Your task to perform on an android device: Open settings on Google Maps Image 0: 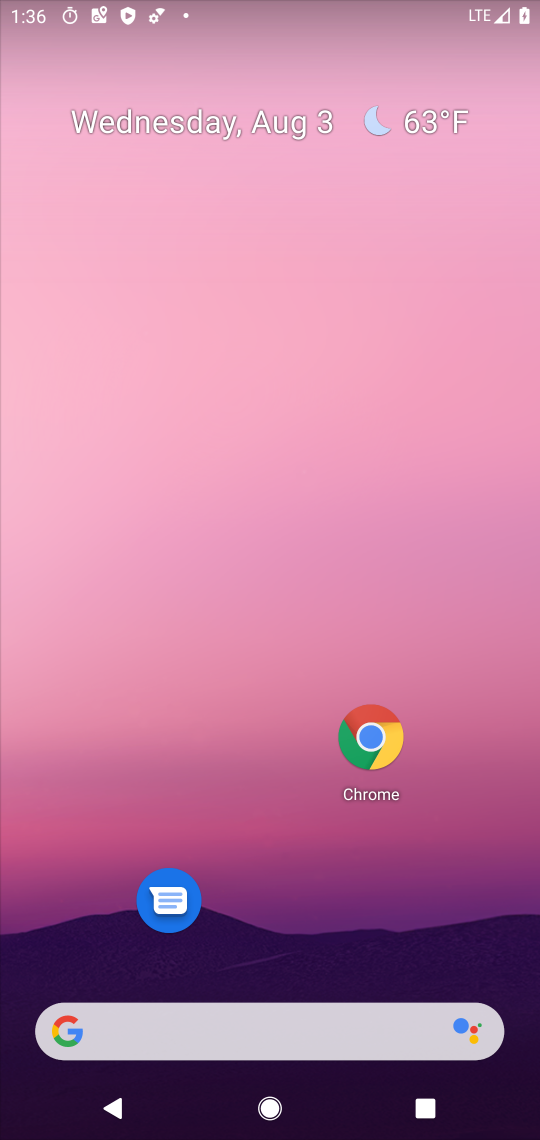
Step 0: drag from (379, 920) to (291, 25)
Your task to perform on an android device: Open settings on Google Maps Image 1: 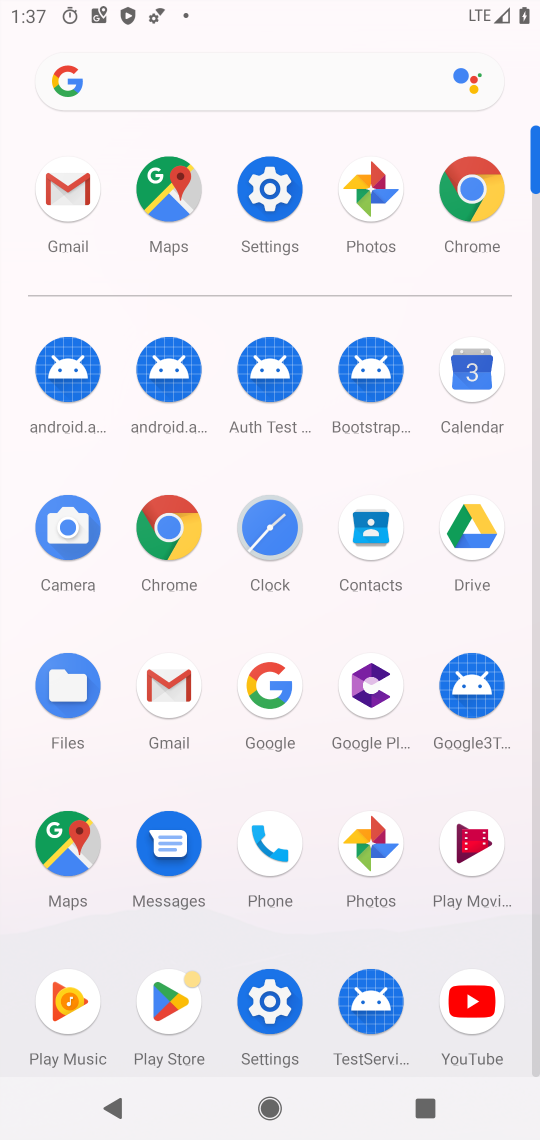
Step 1: click (69, 848)
Your task to perform on an android device: Open settings on Google Maps Image 2: 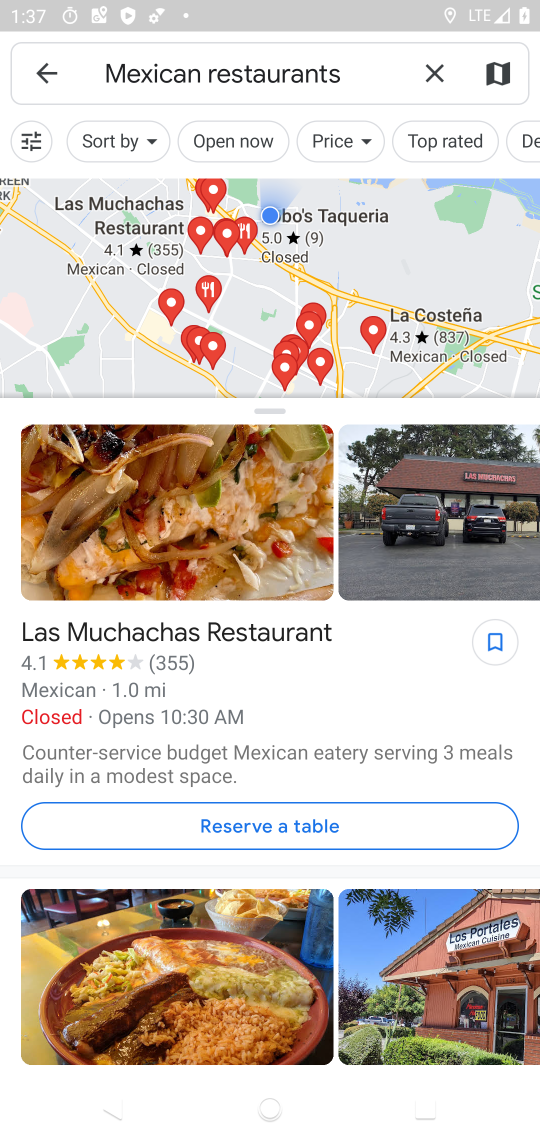
Step 2: click (40, 60)
Your task to perform on an android device: Open settings on Google Maps Image 3: 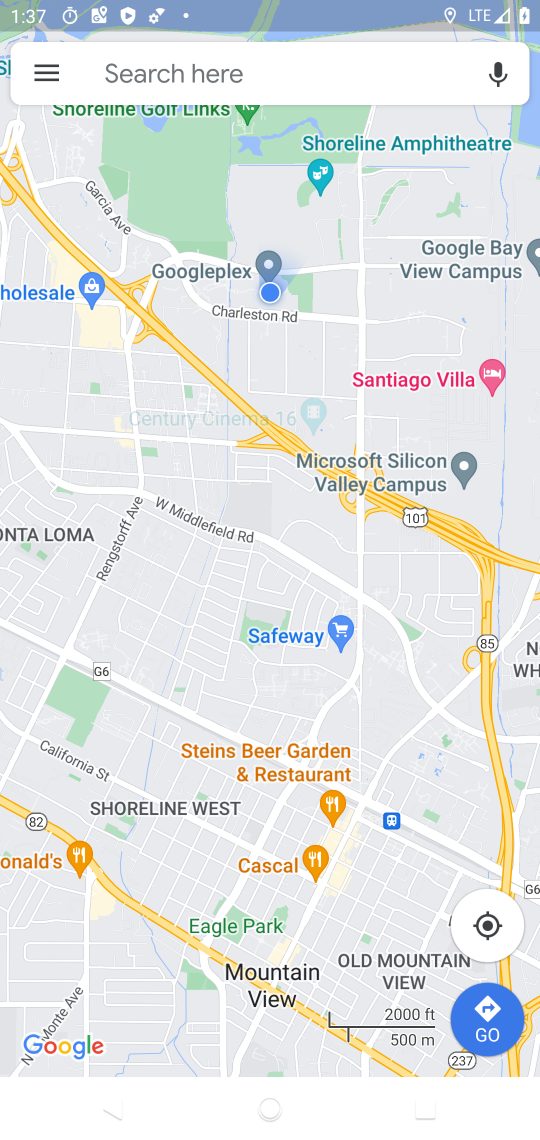
Step 3: click (40, 60)
Your task to perform on an android device: Open settings on Google Maps Image 4: 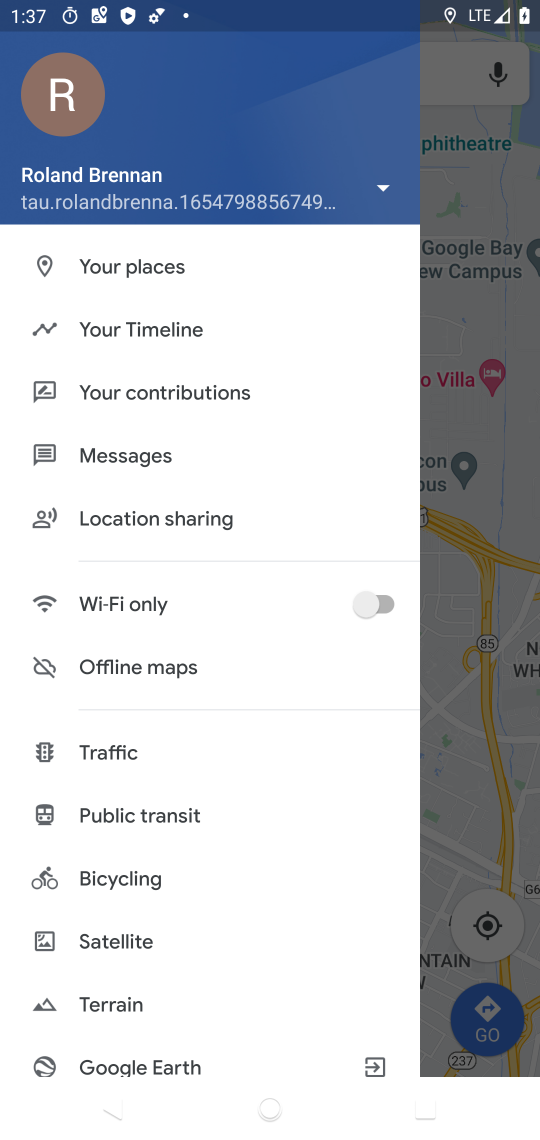
Step 4: drag from (202, 1021) to (261, 356)
Your task to perform on an android device: Open settings on Google Maps Image 5: 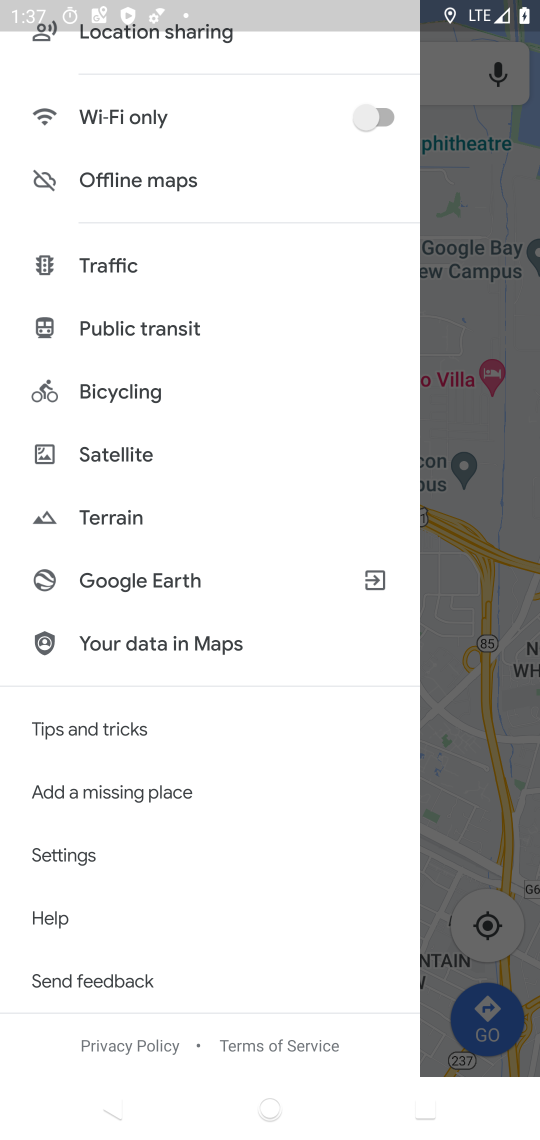
Step 5: click (63, 856)
Your task to perform on an android device: Open settings on Google Maps Image 6: 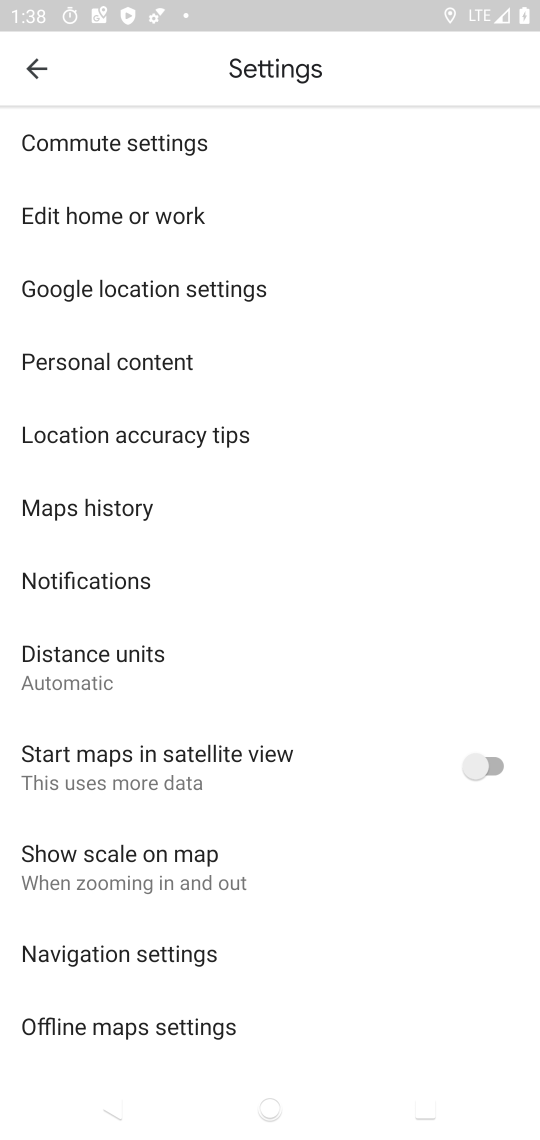
Step 6: task complete